Your task to perform on an android device: What's the weather going to be this weekend? Image 0: 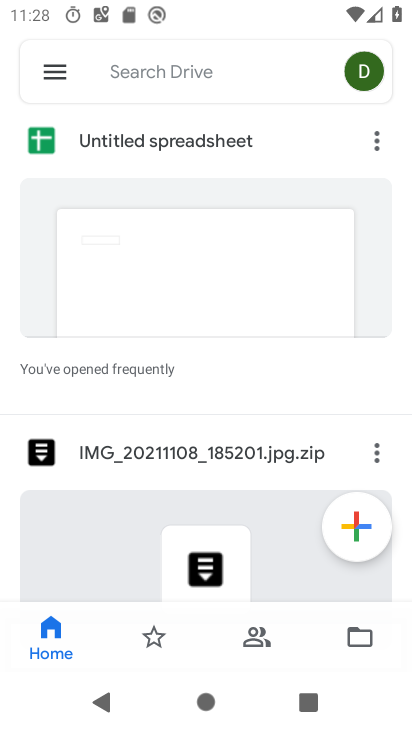
Step 0: press home button
Your task to perform on an android device: What's the weather going to be this weekend? Image 1: 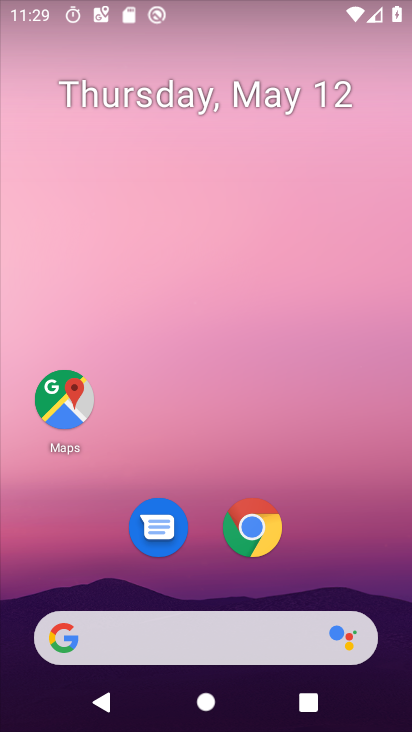
Step 1: drag from (288, 584) to (187, 192)
Your task to perform on an android device: What's the weather going to be this weekend? Image 2: 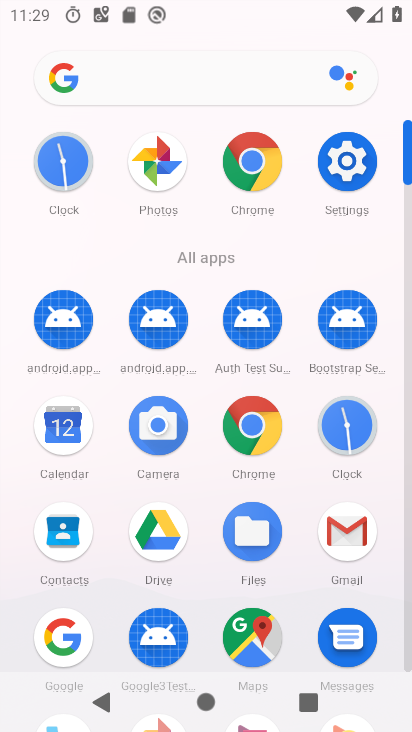
Step 2: click (350, 204)
Your task to perform on an android device: What's the weather going to be this weekend? Image 3: 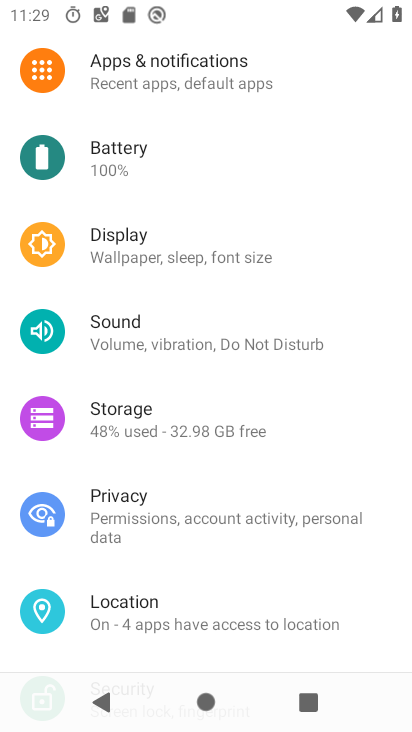
Step 3: click (132, 171)
Your task to perform on an android device: What's the weather going to be this weekend? Image 4: 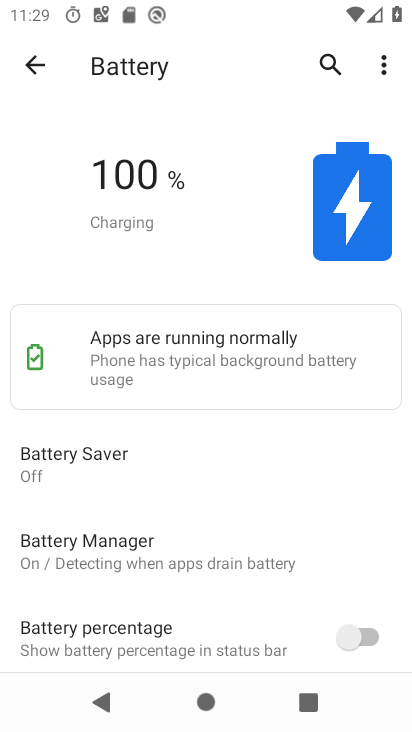
Step 4: task complete